Your task to perform on an android device: Open Google Chrome and open the bookmarks view Image 0: 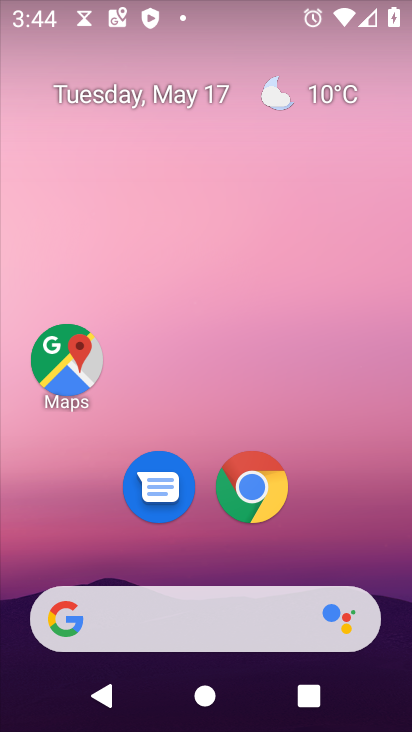
Step 0: click (251, 494)
Your task to perform on an android device: Open Google Chrome and open the bookmarks view Image 1: 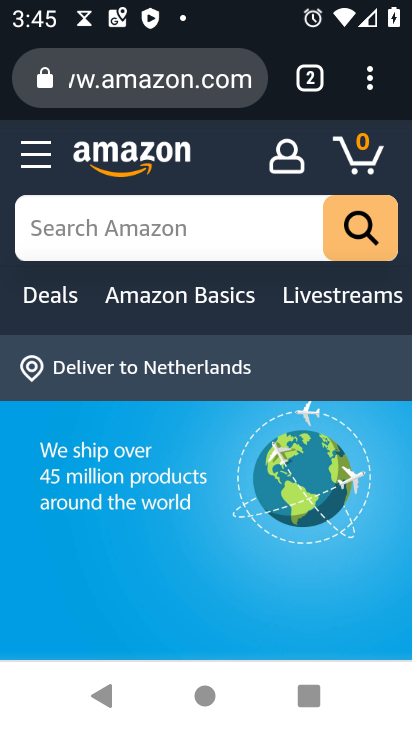
Step 1: click (368, 93)
Your task to perform on an android device: Open Google Chrome and open the bookmarks view Image 2: 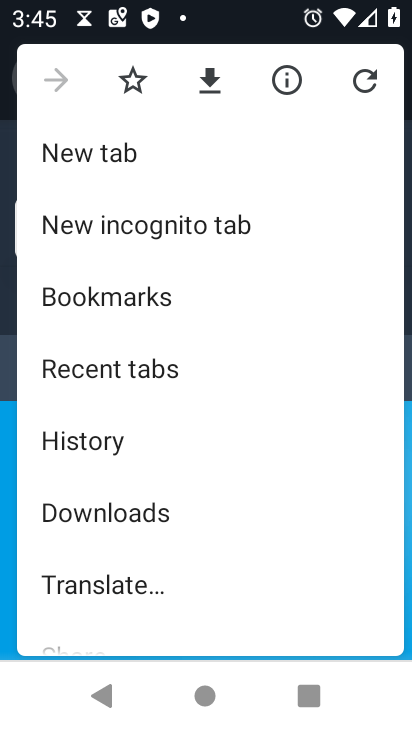
Step 2: click (93, 303)
Your task to perform on an android device: Open Google Chrome and open the bookmarks view Image 3: 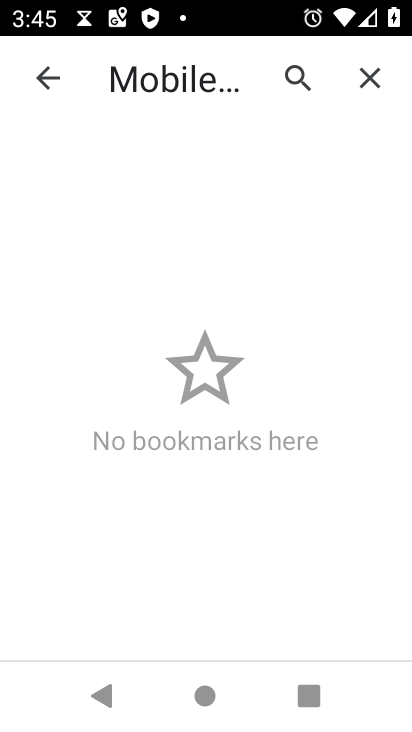
Step 3: task complete